Your task to perform on an android device: Open Chrome and go to settings Image 0: 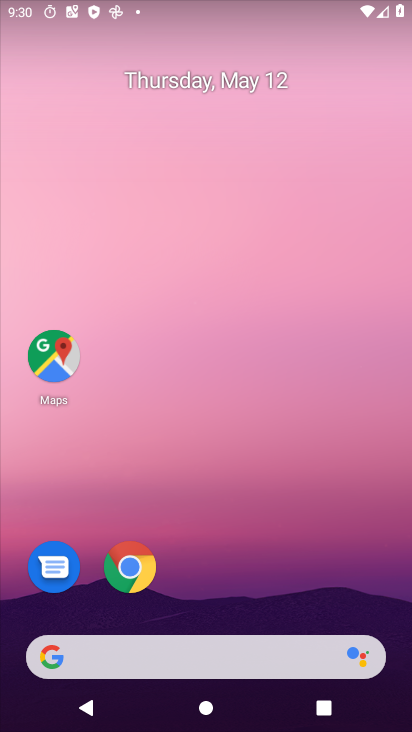
Step 0: drag from (286, 623) to (307, 171)
Your task to perform on an android device: Open Chrome and go to settings Image 1: 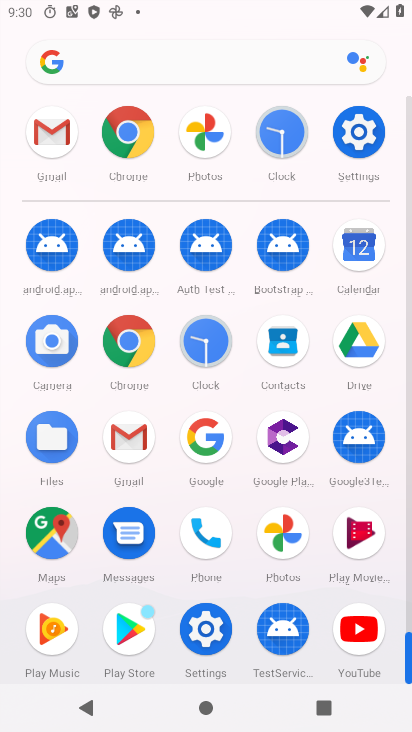
Step 1: click (129, 364)
Your task to perform on an android device: Open Chrome and go to settings Image 2: 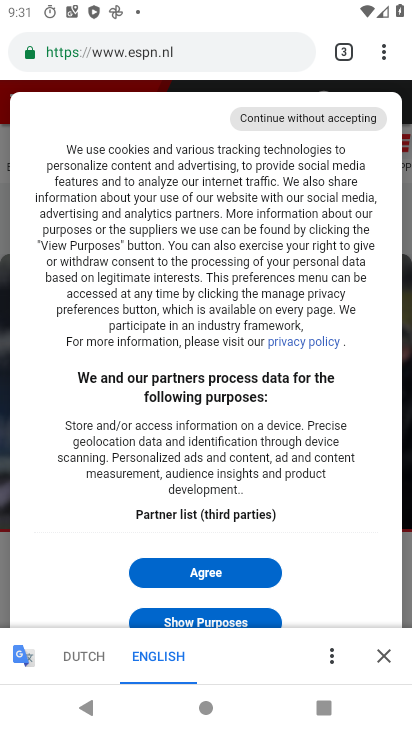
Step 2: click (388, 56)
Your task to perform on an android device: Open Chrome and go to settings Image 3: 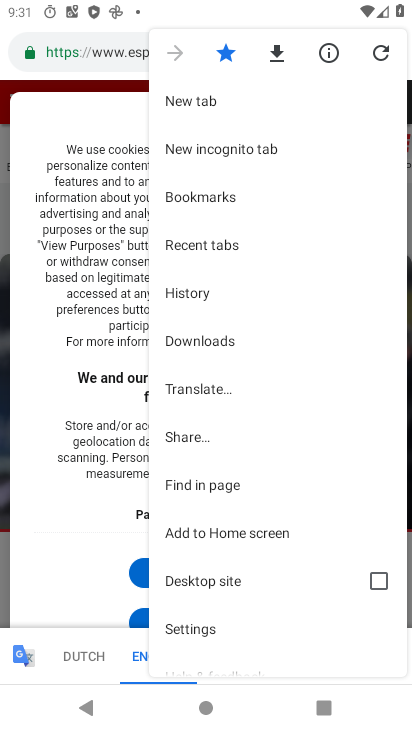
Step 3: click (222, 622)
Your task to perform on an android device: Open Chrome and go to settings Image 4: 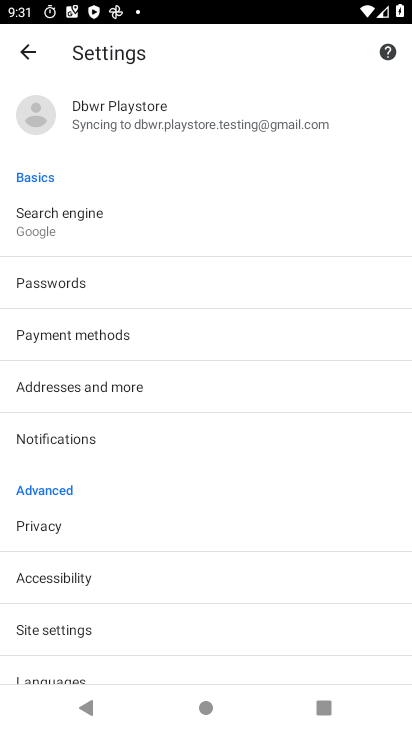
Step 4: task complete